Your task to perform on an android device: check data usage Image 0: 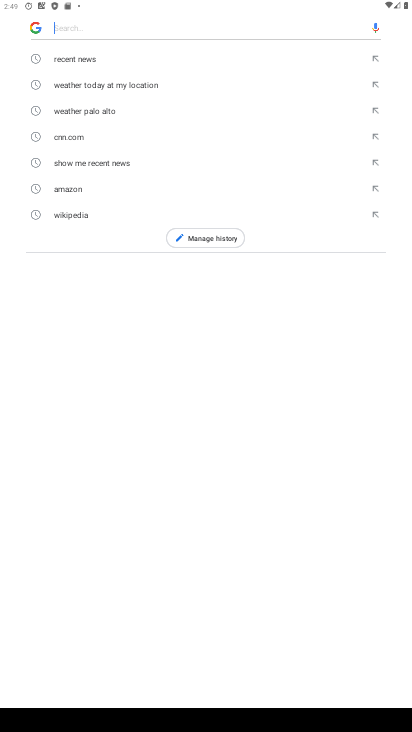
Step 0: press home button
Your task to perform on an android device: check data usage Image 1: 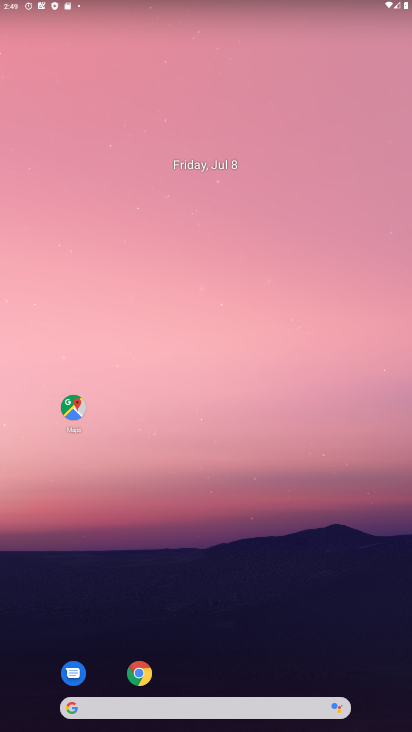
Step 1: drag from (272, 701) to (283, 411)
Your task to perform on an android device: check data usage Image 2: 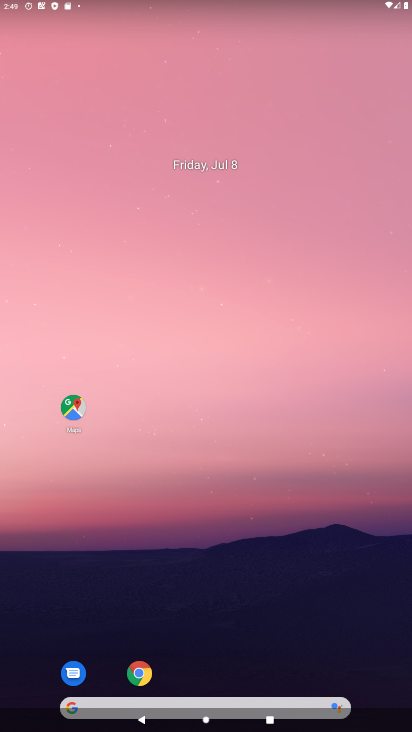
Step 2: drag from (192, 704) to (198, 370)
Your task to perform on an android device: check data usage Image 3: 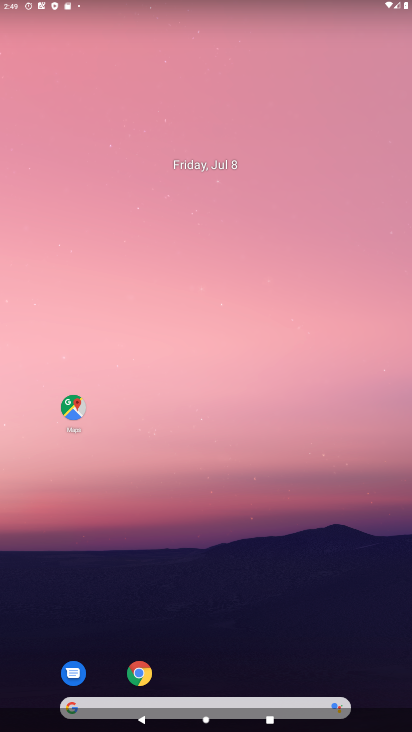
Step 3: drag from (182, 684) to (227, 218)
Your task to perform on an android device: check data usage Image 4: 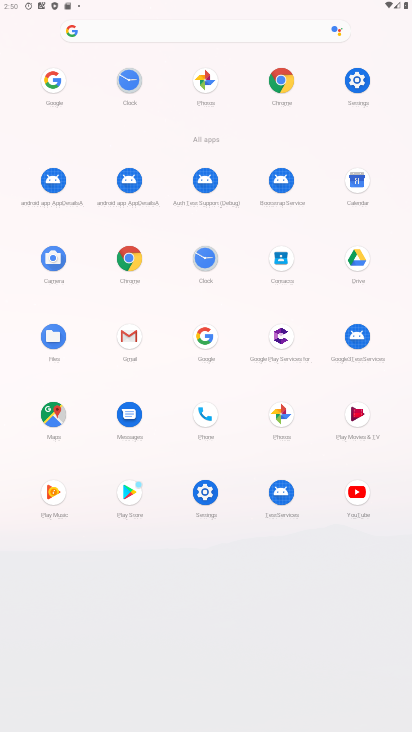
Step 4: click (356, 87)
Your task to perform on an android device: check data usage Image 5: 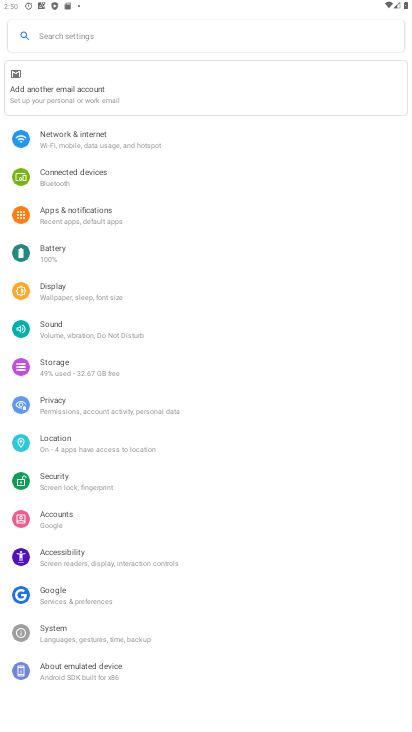
Step 5: click (107, 135)
Your task to perform on an android device: check data usage Image 6: 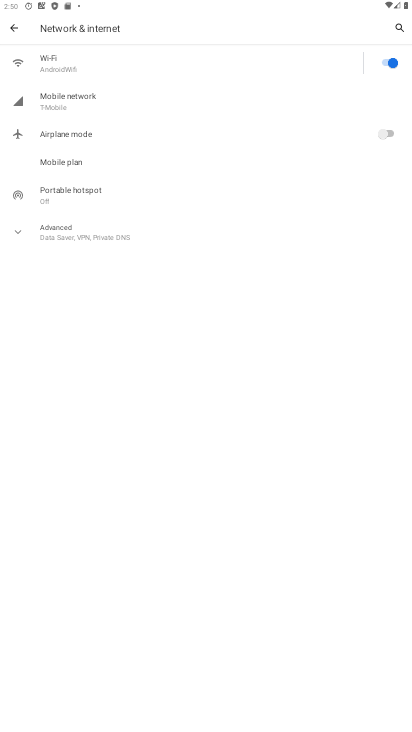
Step 6: click (98, 102)
Your task to perform on an android device: check data usage Image 7: 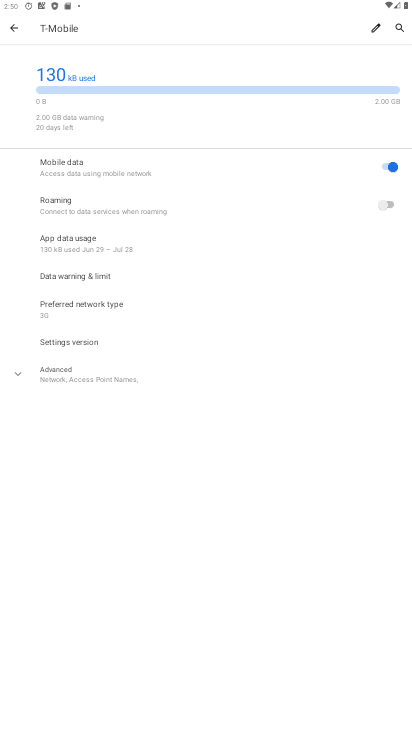
Step 7: task complete